Your task to perform on an android device: check google app version Image 0: 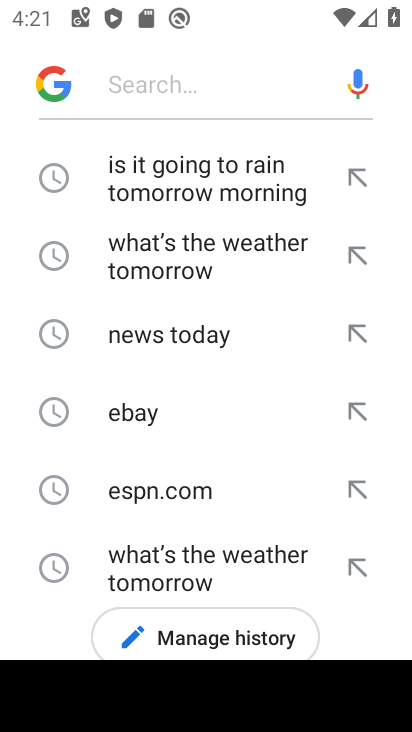
Step 0: press back button
Your task to perform on an android device: check google app version Image 1: 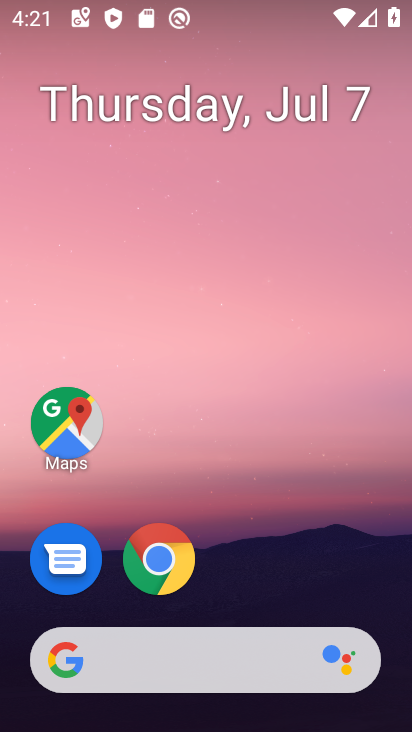
Step 1: drag from (242, 573) to (277, 89)
Your task to perform on an android device: check google app version Image 2: 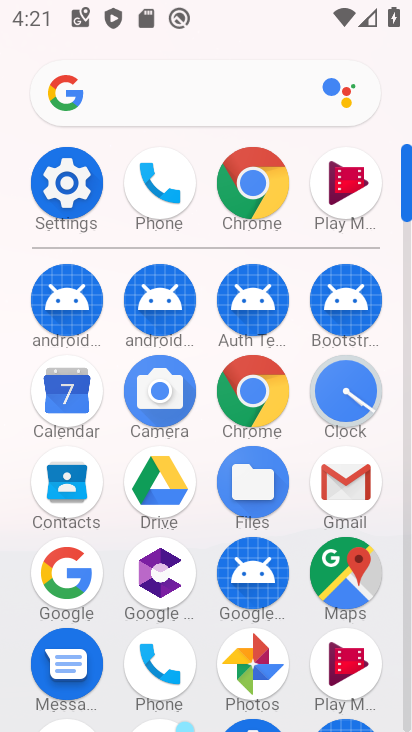
Step 2: click (76, 588)
Your task to perform on an android device: check google app version Image 3: 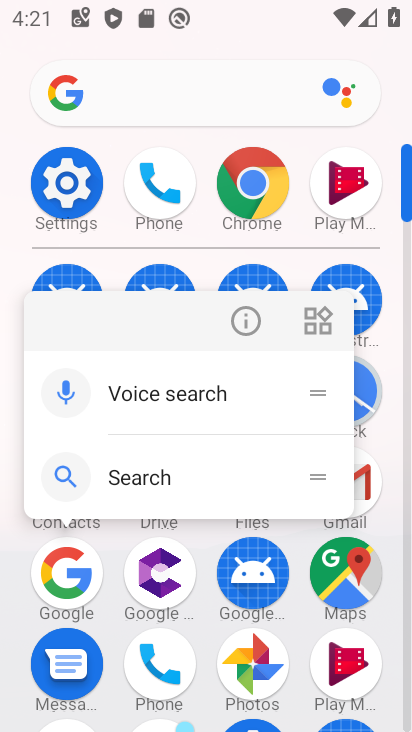
Step 3: click (239, 321)
Your task to perform on an android device: check google app version Image 4: 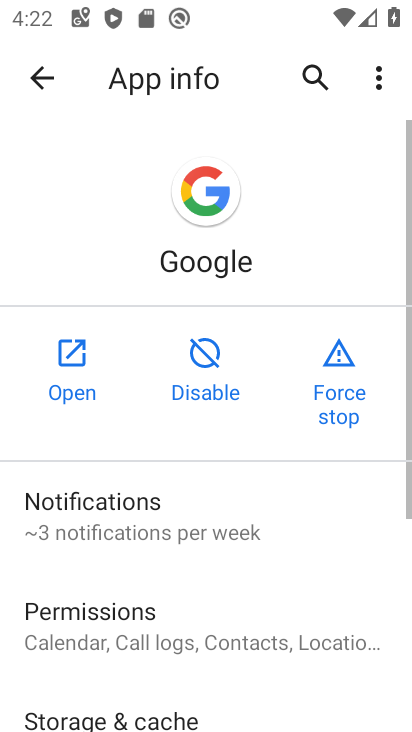
Step 4: drag from (182, 638) to (255, 59)
Your task to perform on an android device: check google app version Image 5: 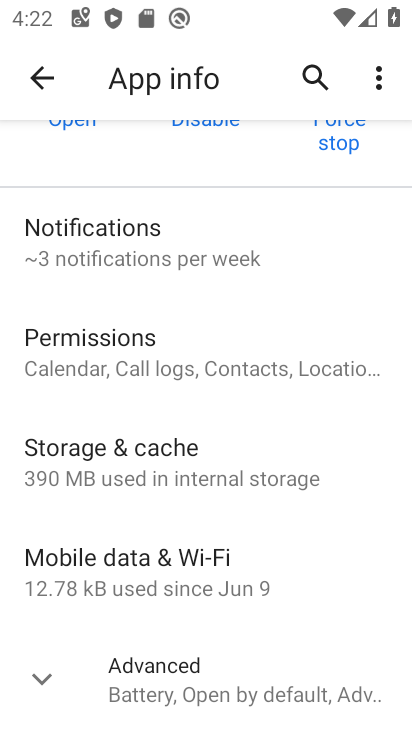
Step 5: click (143, 683)
Your task to perform on an android device: check google app version Image 6: 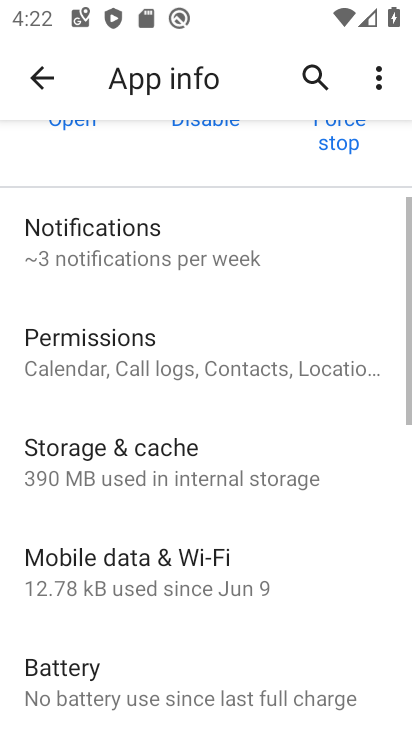
Step 6: task complete